Your task to perform on an android device: toggle wifi Image 0: 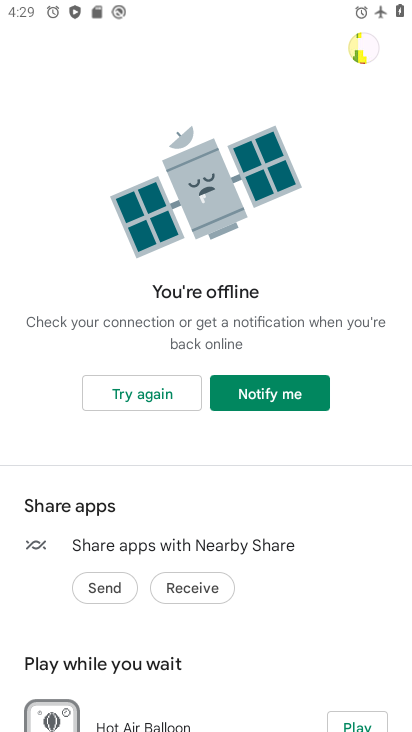
Step 0: press back button
Your task to perform on an android device: toggle wifi Image 1: 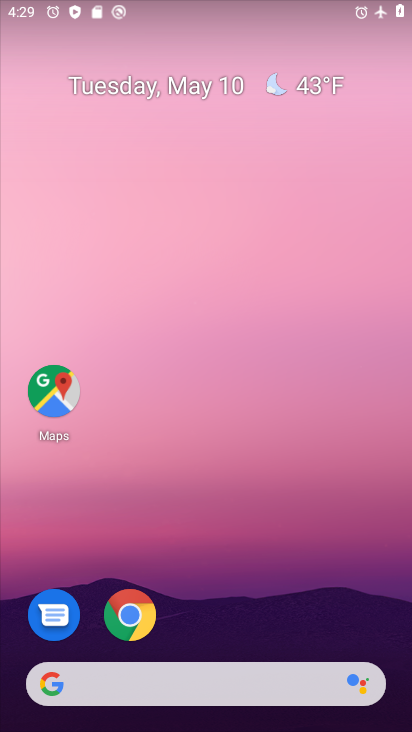
Step 1: drag from (347, 592) to (278, 58)
Your task to perform on an android device: toggle wifi Image 2: 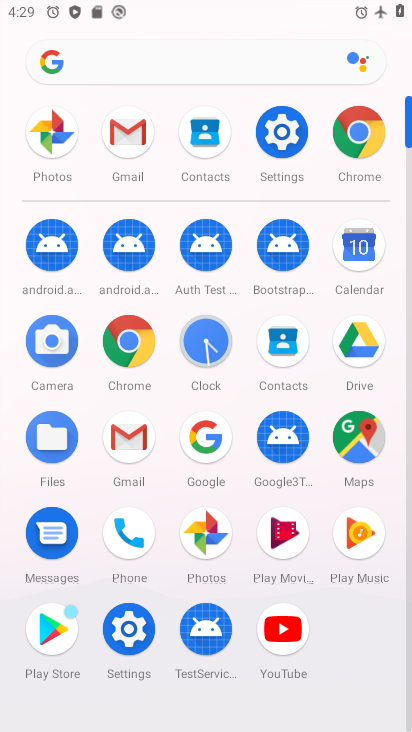
Step 2: click (283, 130)
Your task to perform on an android device: toggle wifi Image 3: 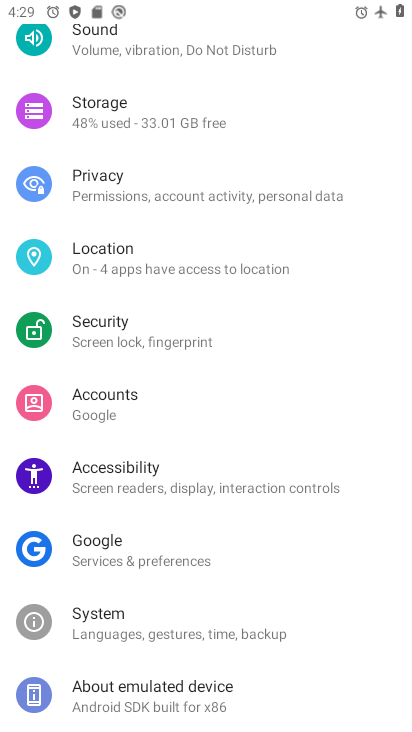
Step 3: drag from (260, 82) to (255, 520)
Your task to perform on an android device: toggle wifi Image 4: 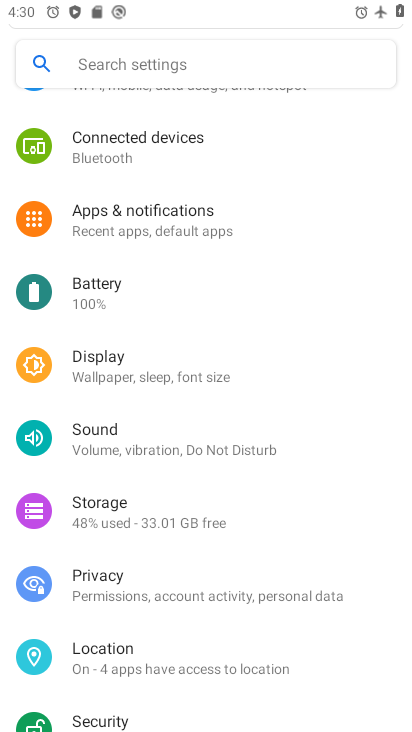
Step 4: drag from (297, 156) to (305, 581)
Your task to perform on an android device: toggle wifi Image 5: 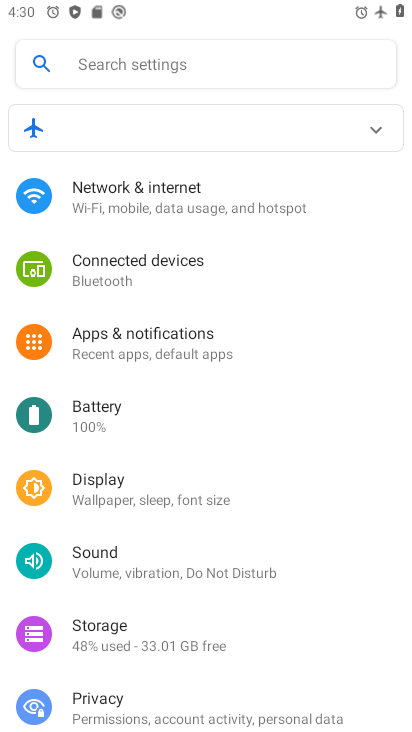
Step 5: click (216, 184)
Your task to perform on an android device: toggle wifi Image 6: 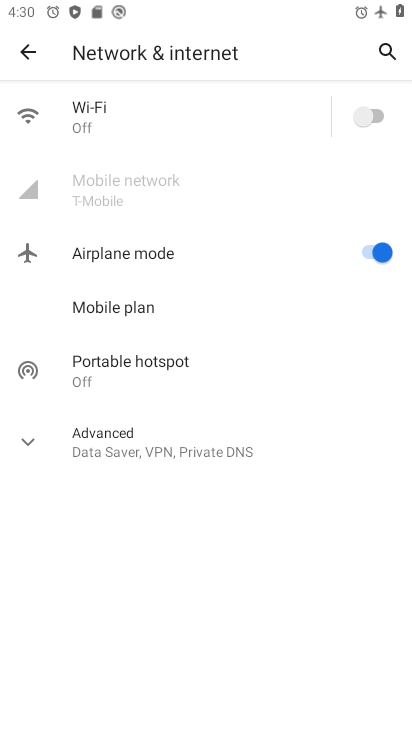
Step 6: click (367, 111)
Your task to perform on an android device: toggle wifi Image 7: 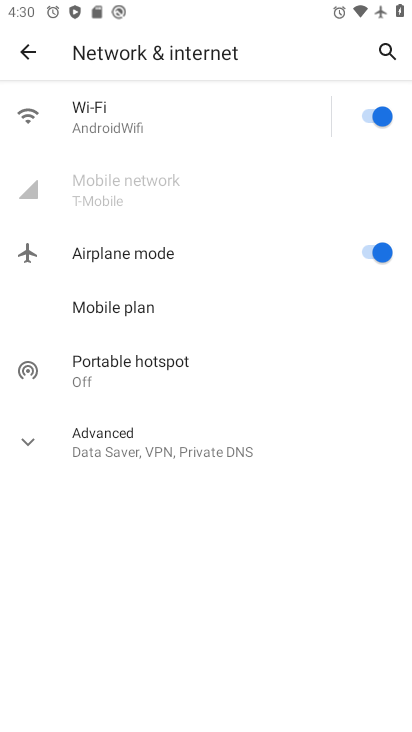
Step 7: task complete